Your task to perform on an android device: Search for Italian restaurants on Maps Image 0: 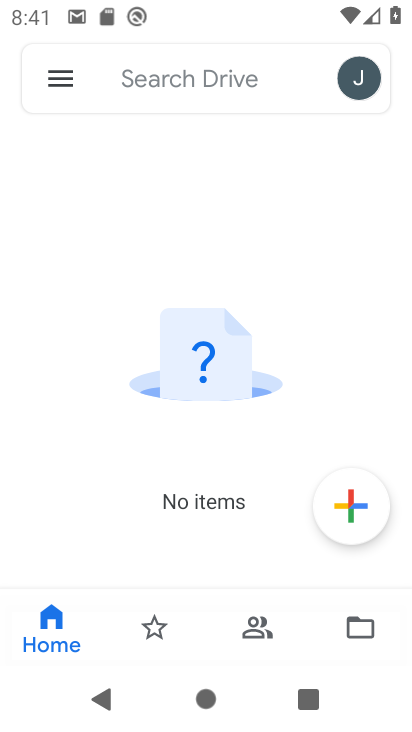
Step 0: press back button
Your task to perform on an android device: Search for Italian restaurants on Maps Image 1: 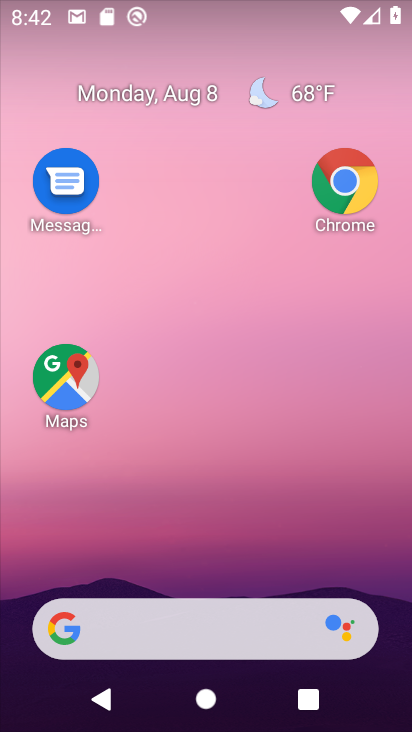
Step 1: click (45, 401)
Your task to perform on an android device: Search for Italian restaurants on Maps Image 2: 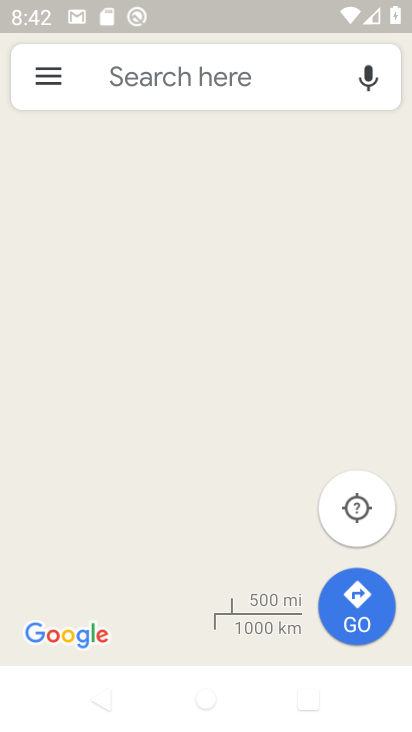
Step 2: click (218, 107)
Your task to perform on an android device: Search for Italian restaurants on Maps Image 3: 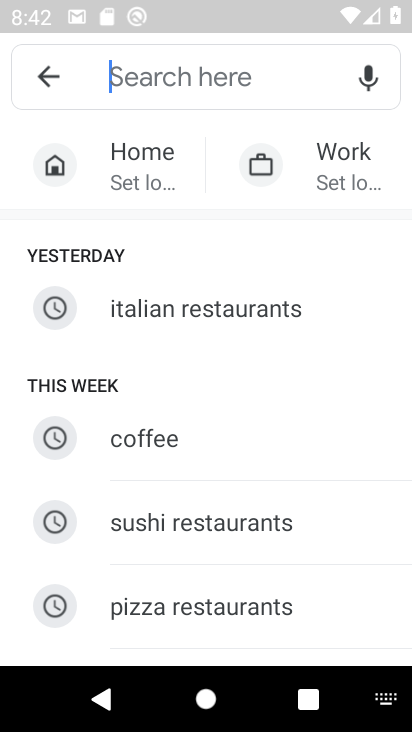
Step 3: click (187, 324)
Your task to perform on an android device: Search for Italian restaurants on Maps Image 4: 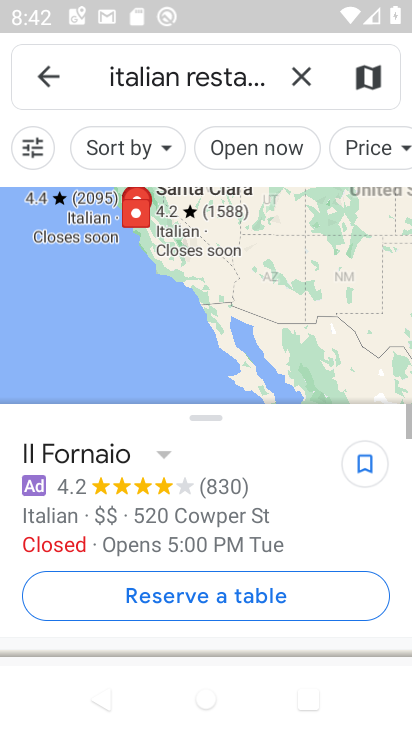
Step 4: task complete